Your task to perform on an android device: Go to Google maps Image 0: 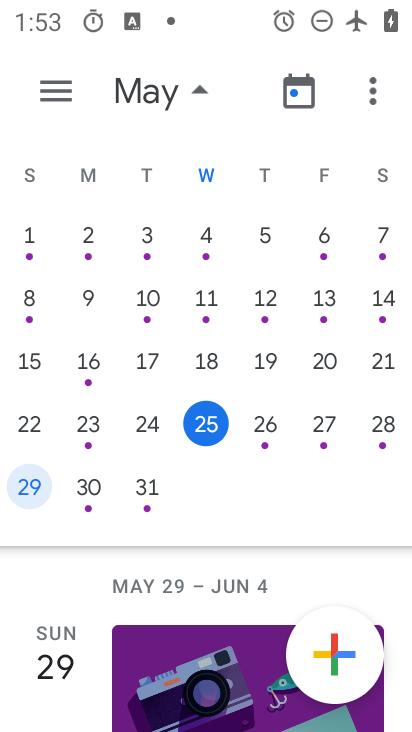
Step 0: press home button
Your task to perform on an android device: Go to Google maps Image 1: 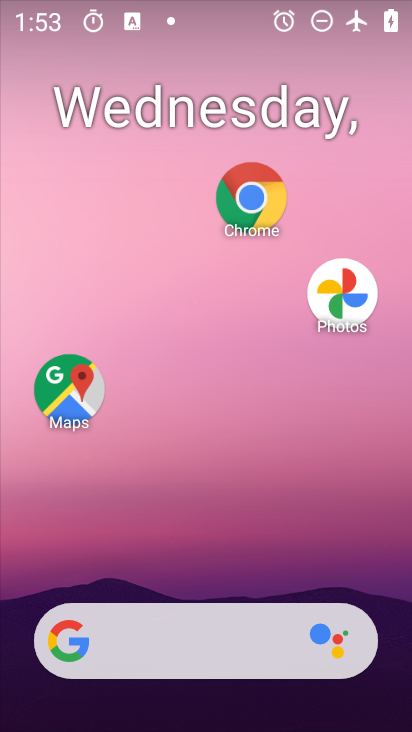
Step 1: drag from (187, 650) to (236, 272)
Your task to perform on an android device: Go to Google maps Image 2: 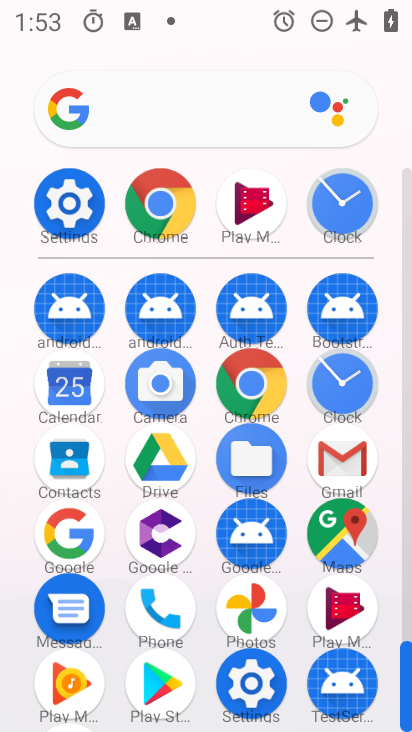
Step 2: click (360, 535)
Your task to perform on an android device: Go to Google maps Image 3: 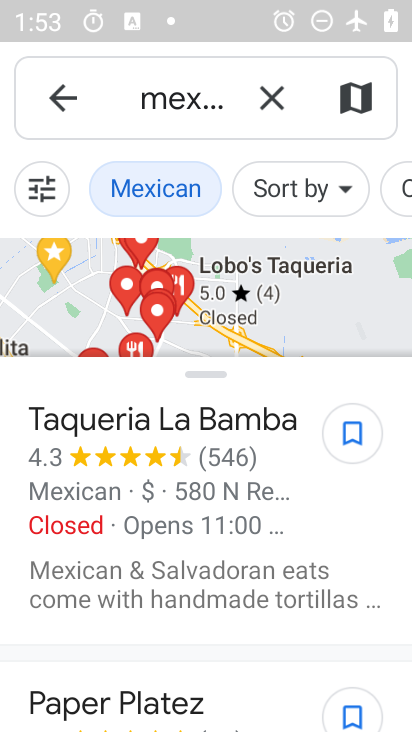
Step 3: task complete